Your task to perform on an android device: toggle wifi Image 0: 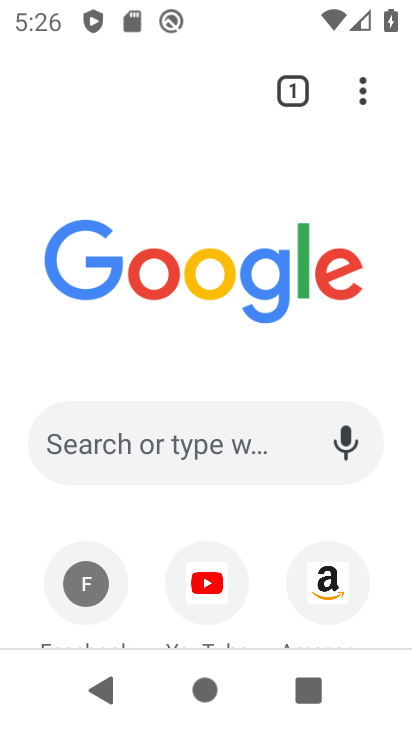
Step 0: press home button
Your task to perform on an android device: toggle wifi Image 1: 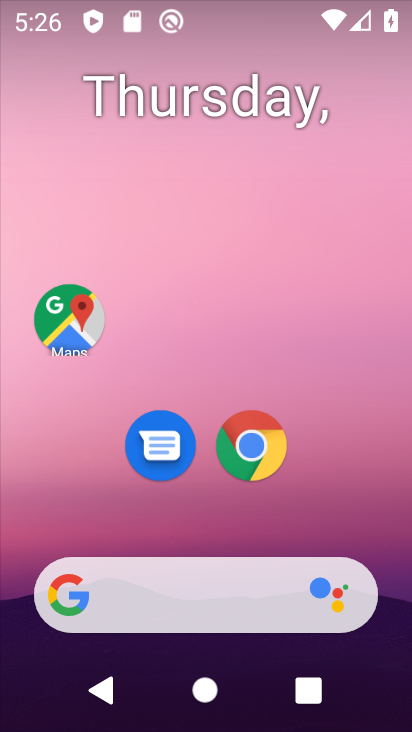
Step 1: drag from (163, 7) to (171, 460)
Your task to perform on an android device: toggle wifi Image 2: 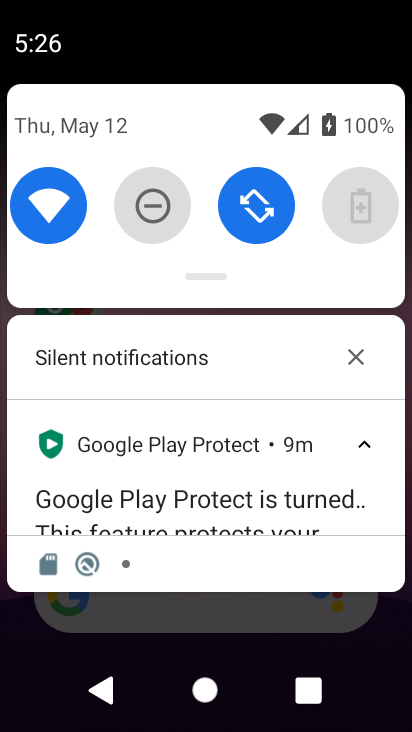
Step 2: click (40, 199)
Your task to perform on an android device: toggle wifi Image 3: 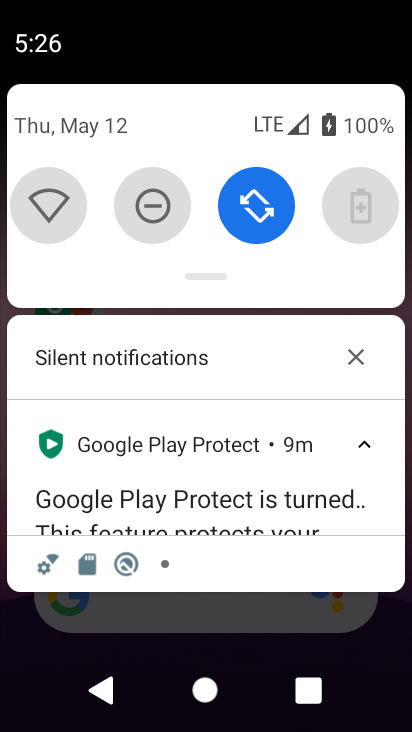
Step 3: task complete